Your task to perform on an android device: What is the news today? Image 0: 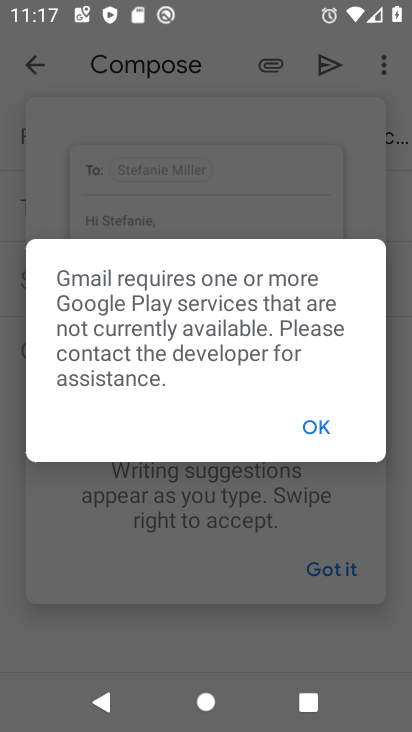
Step 0: press home button
Your task to perform on an android device: What is the news today? Image 1: 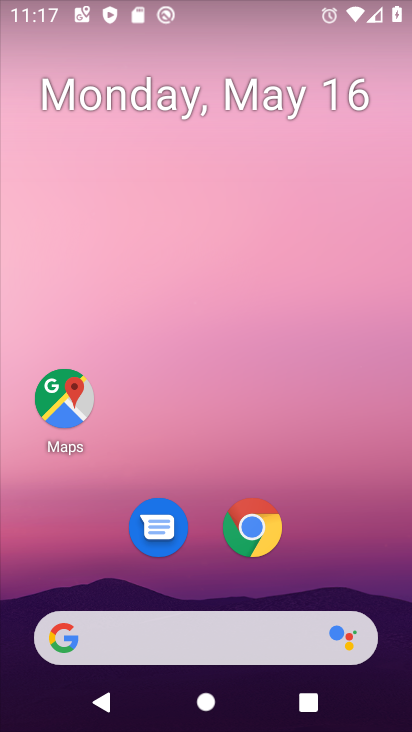
Step 1: click (110, 634)
Your task to perform on an android device: What is the news today? Image 2: 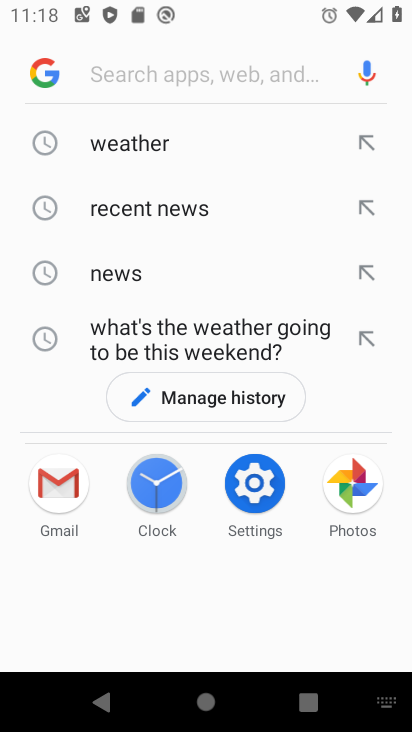
Step 2: type "news today"
Your task to perform on an android device: What is the news today? Image 3: 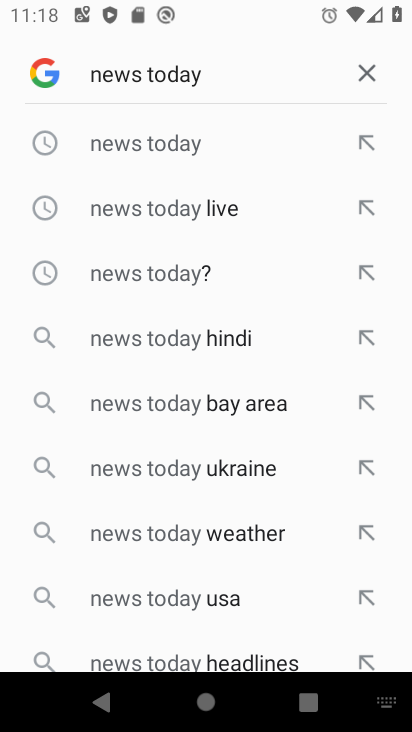
Step 3: click (113, 153)
Your task to perform on an android device: What is the news today? Image 4: 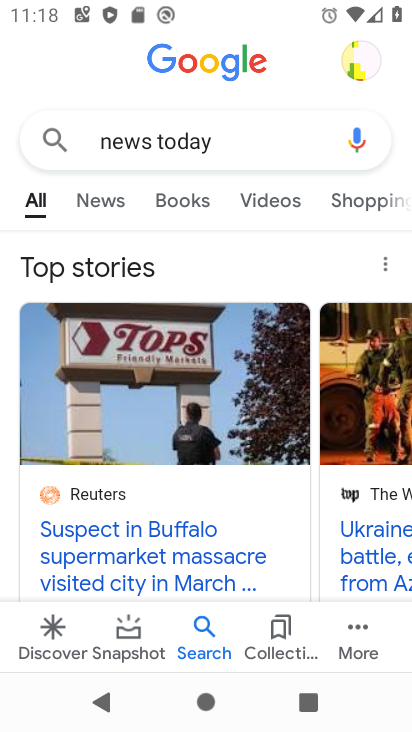
Step 4: click (90, 200)
Your task to perform on an android device: What is the news today? Image 5: 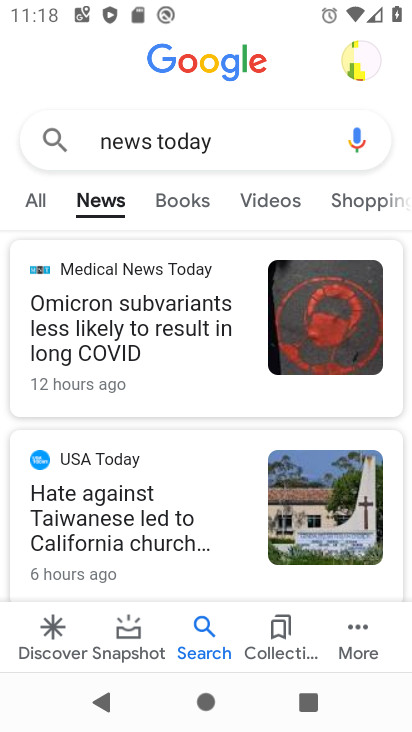
Step 5: drag from (189, 497) to (168, 352)
Your task to perform on an android device: What is the news today? Image 6: 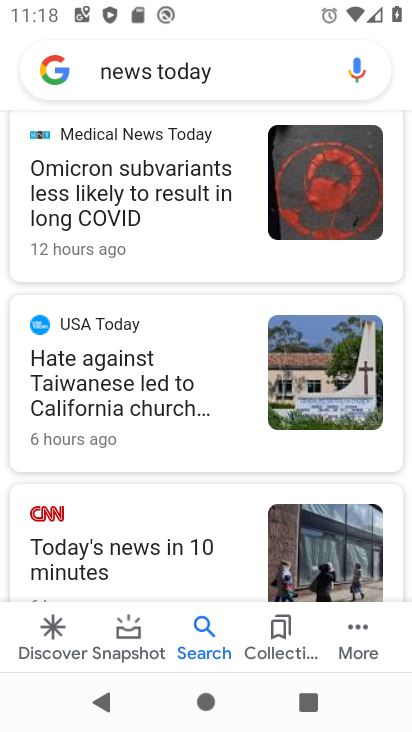
Step 6: drag from (134, 483) to (112, 323)
Your task to perform on an android device: What is the news today? Image 7: 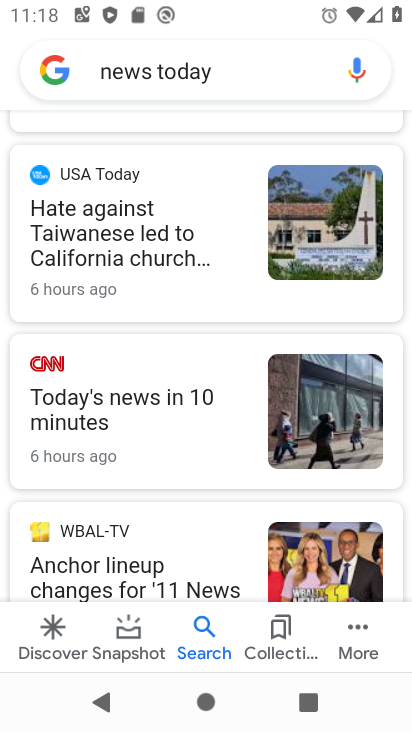
Step 7: click (99, 258)
Your task to perform on an android device: What is the news today? Image 8: 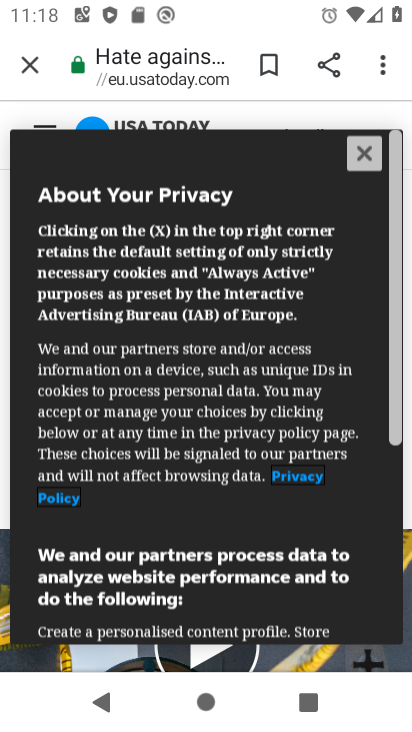
Step 8: task complete